Your task to perform on an android device: turn vacation reply on in the gmail app Image 0: 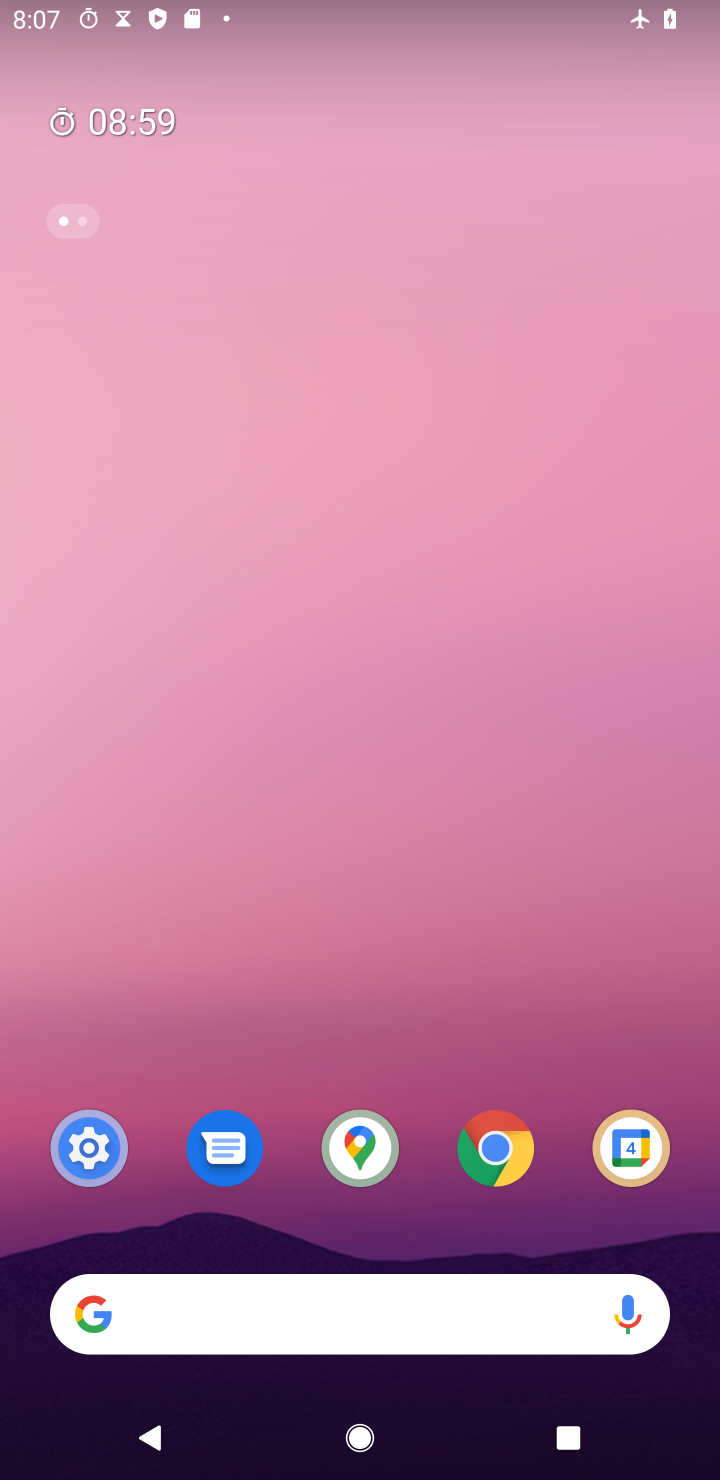
Step 0: drag from (568, 1094) to (511, 143)
Your task to perform on an android device: turn vacation reply on in the gmail app Image 1: 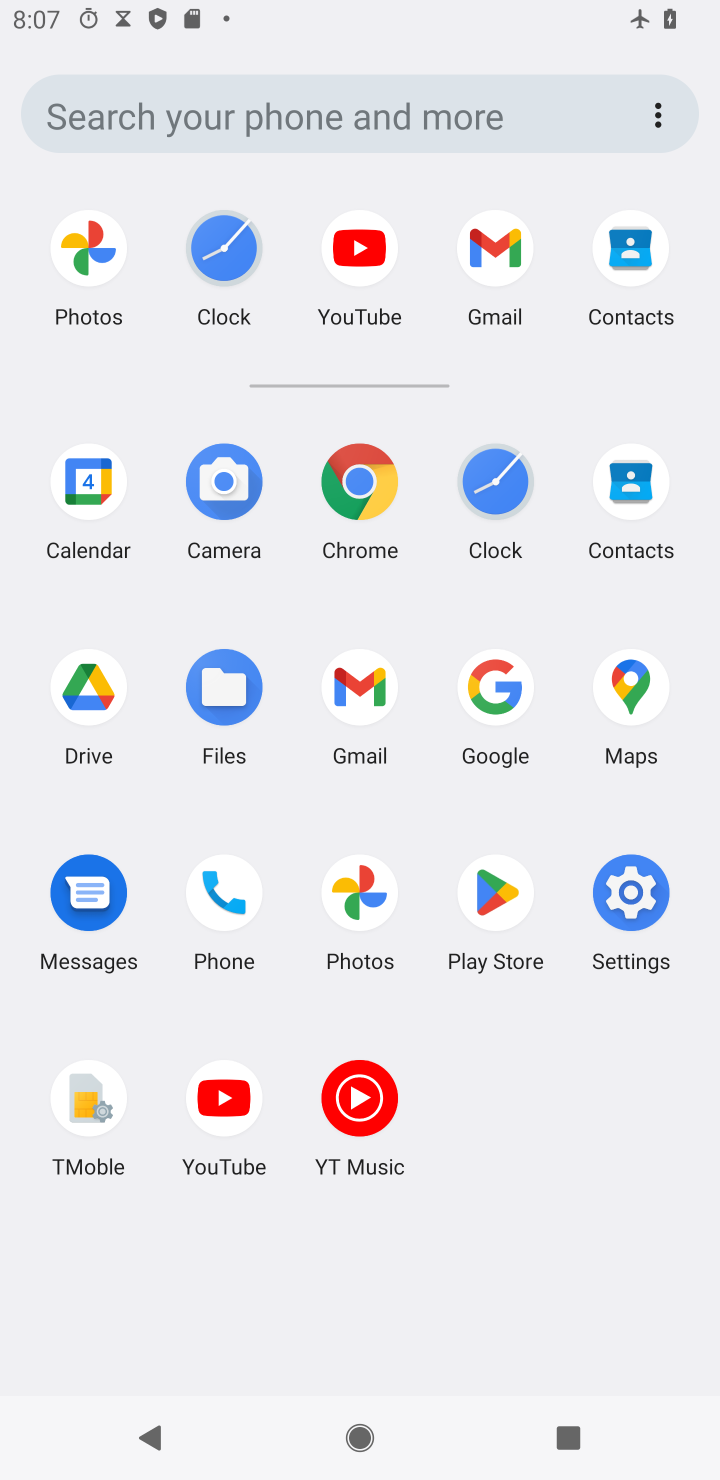
Step 1: click (367, 698)
Your task to perform on an android device: turn vacation reply on in the gmail app Image 2: 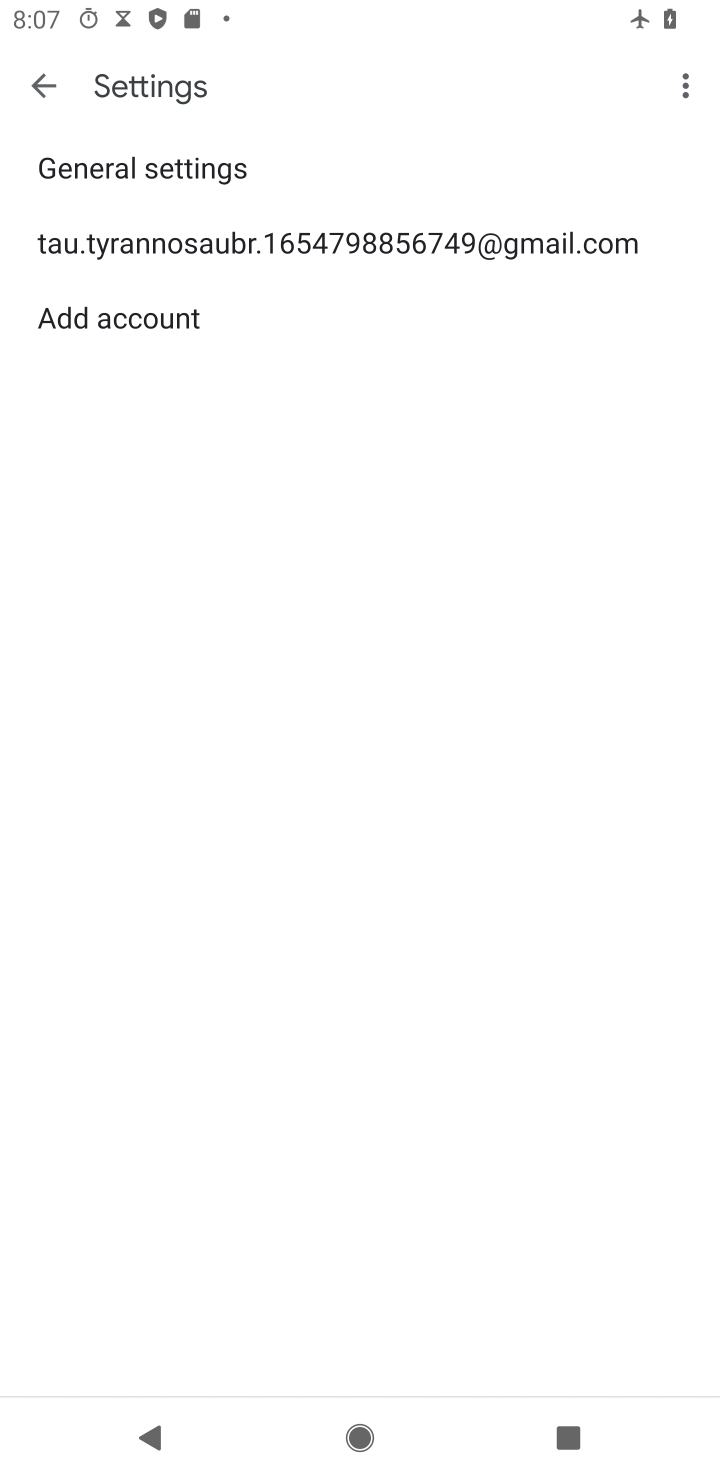
Step 2: click (379, 244)
Your task to perform on an android device: turn vacation reply on in the gmail app Image 3: 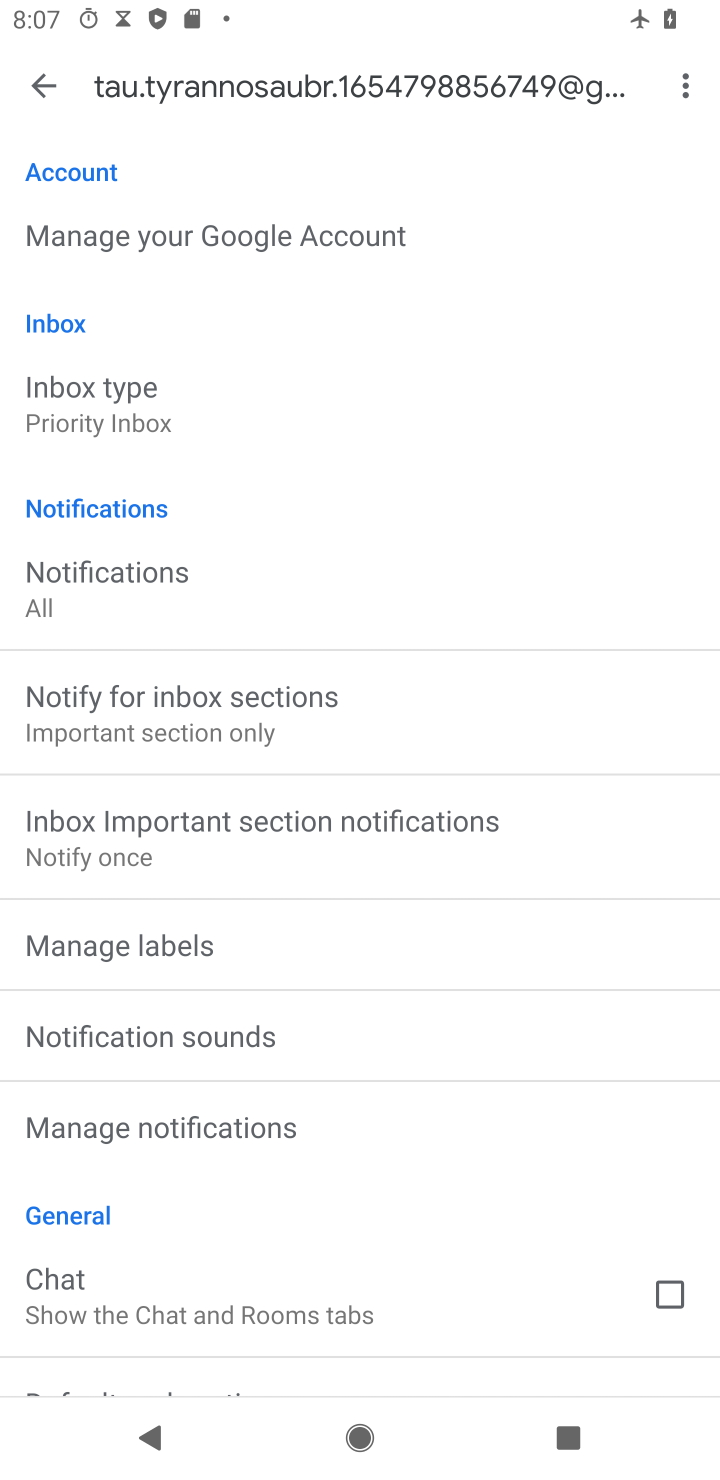
Step 3: drag from (489, 1256) to (373, 279)
Your task to perform on an android device: turn vacation reply on in the gmail app Image 4: 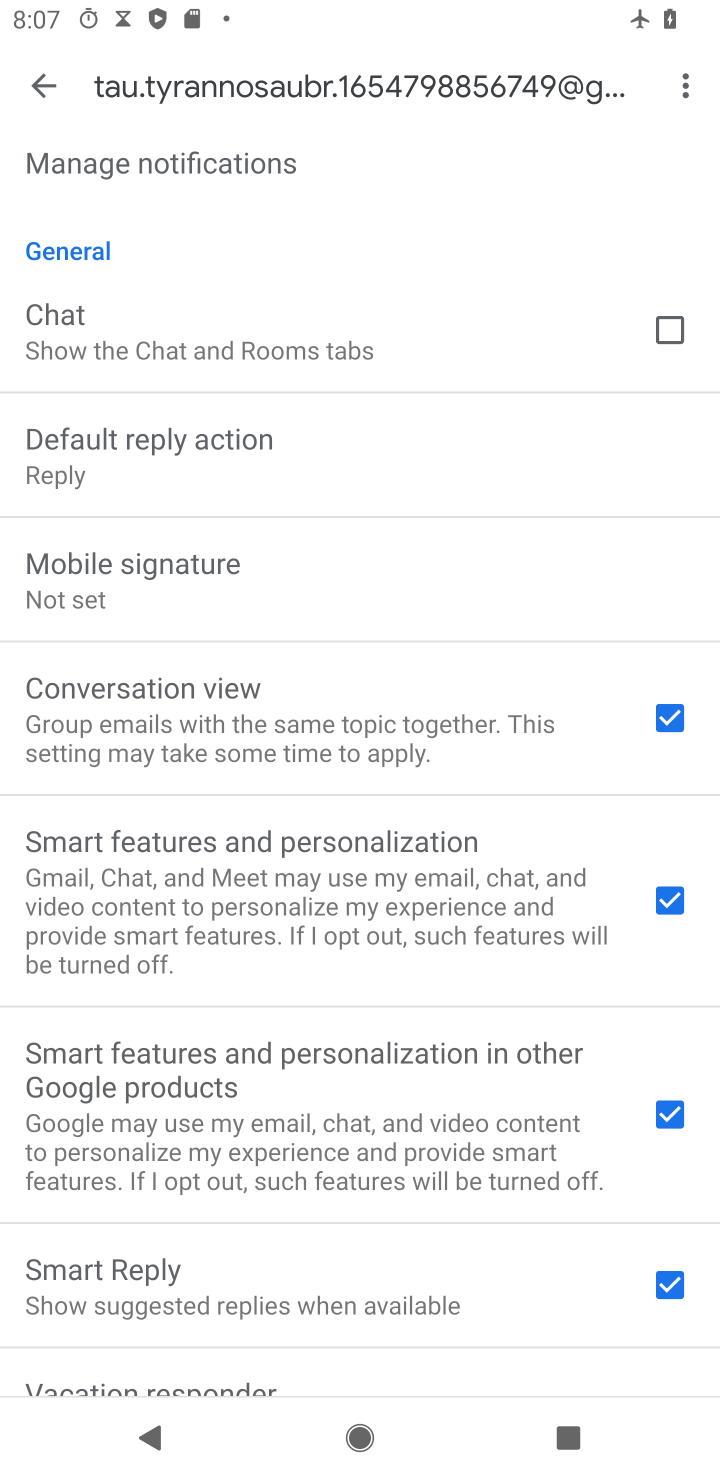
Step 4: drag from (414, 815) to (331, 195)
Your task to perform on an android device: turn vacation reply on in the gmail app Image 5: 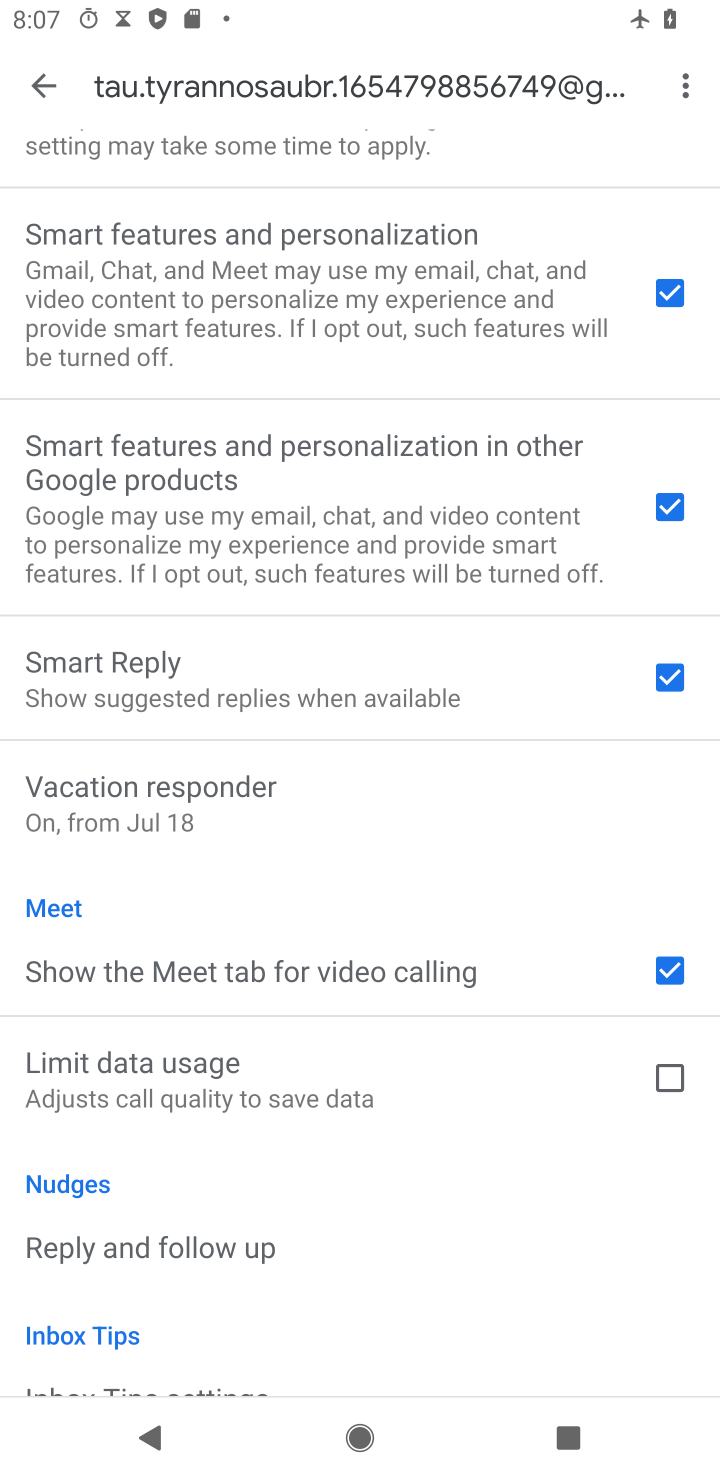
Step 5: click (351, 827)
Your task to perform on an android device: turn vacation reply on in the gmail app Image 6: 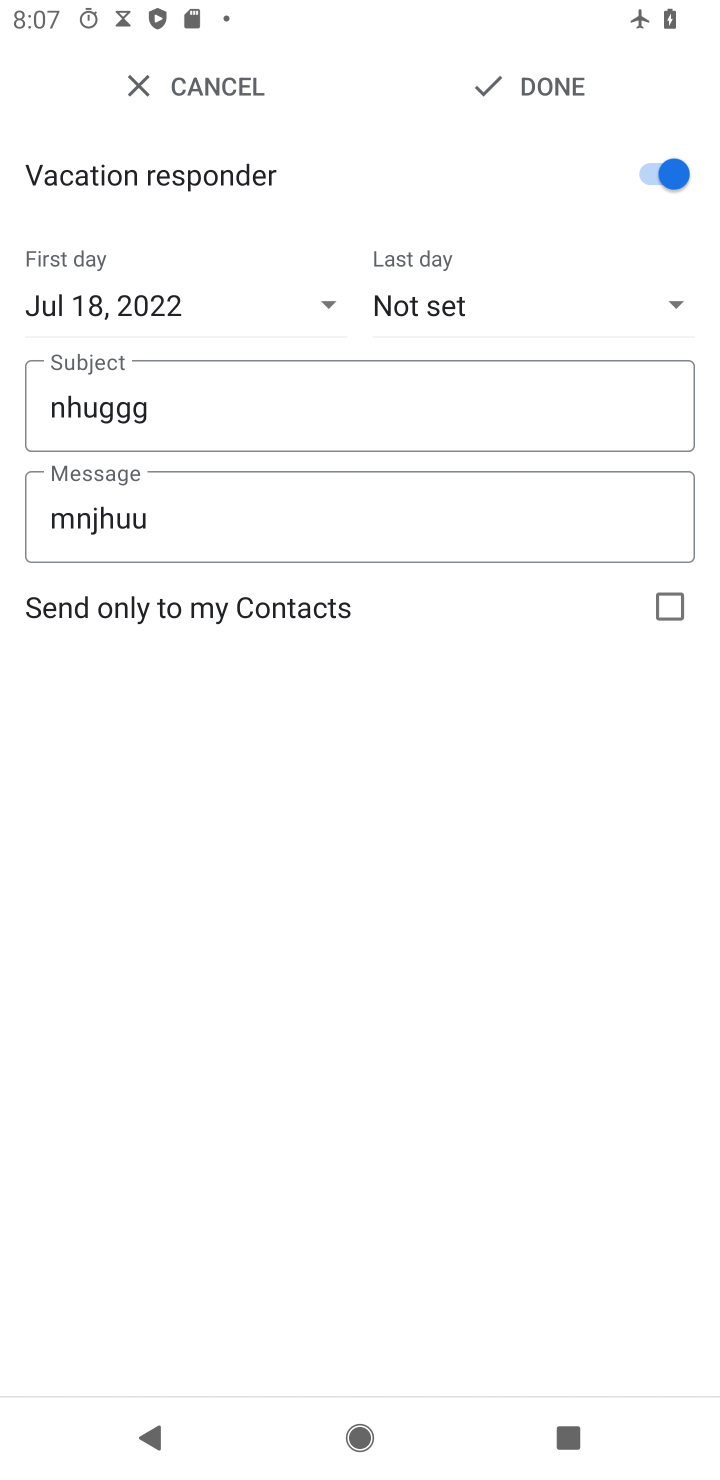
Step 6: click (464, 427)
Your task to perform on an android device: turn vacation reply on in the gmail app Image 7: 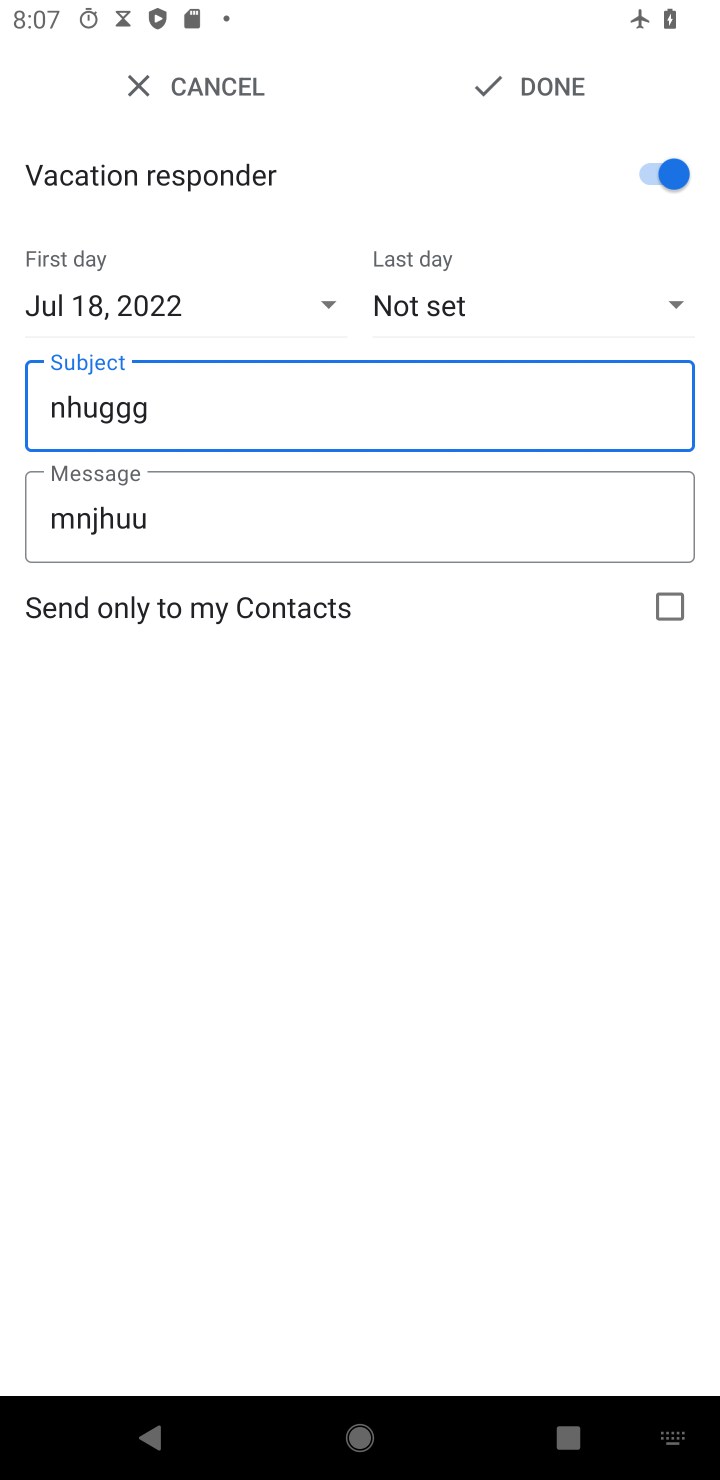
Step 7: type "klllll"
Your task to perform on an android device: turn vacation reply on in the gmail app Image 8: 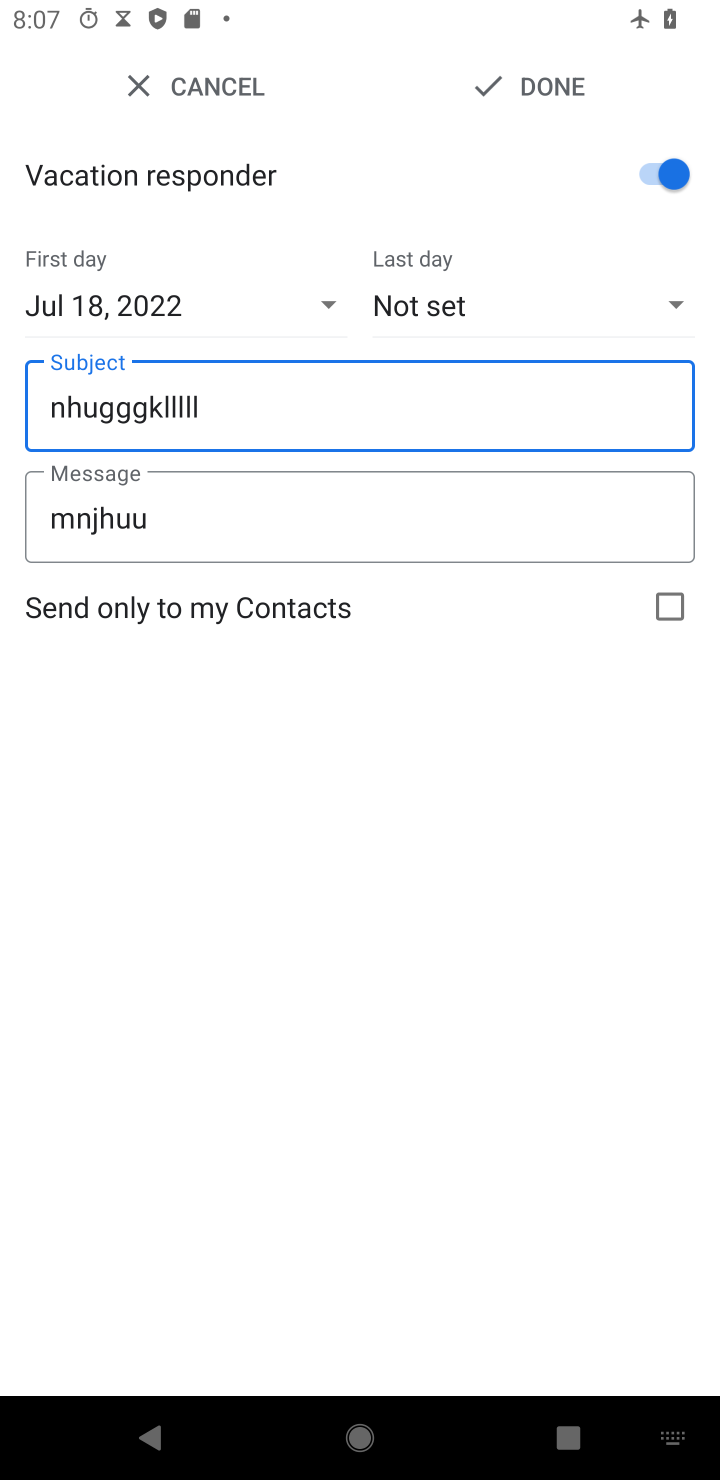
Step 8: click (553, 83)
Your task to perform on an android device: turn vacation reply on in the gmail app Image 9: 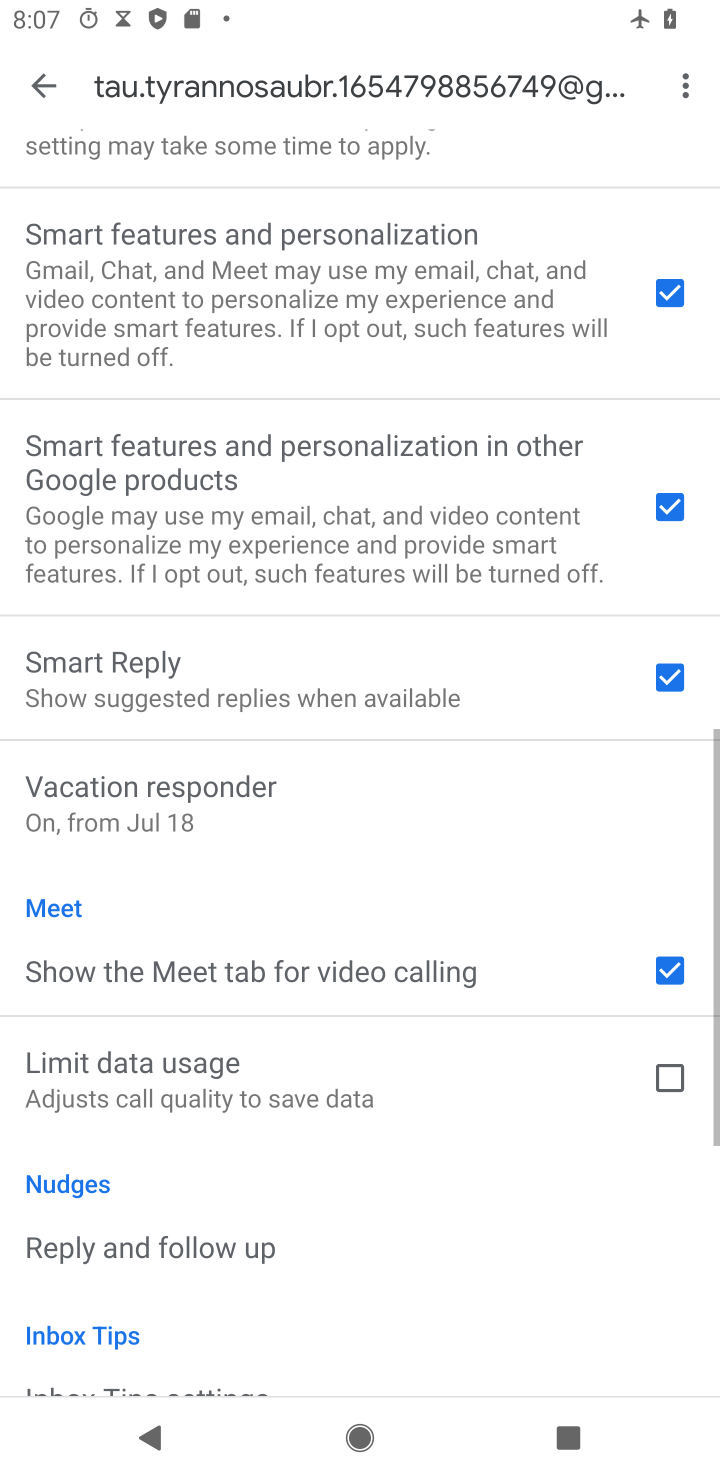
Step 9: task complete